Your task to perform on an android device: stop showing notifications on the lock screen Image 0: 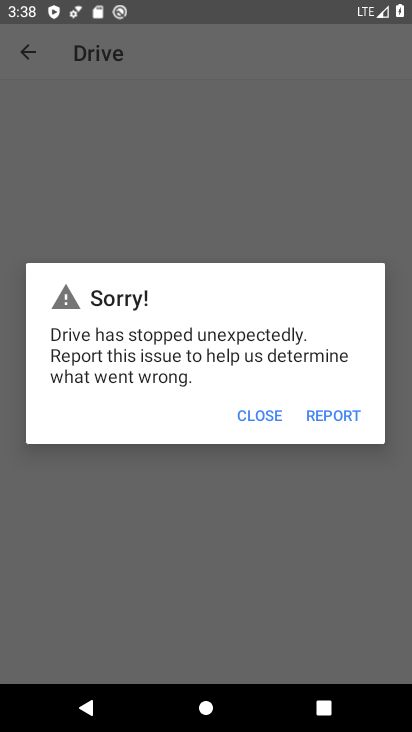
Step 0: press home button
Your task to perform on an android device: stop showing notifications on the lock screen Image 1: 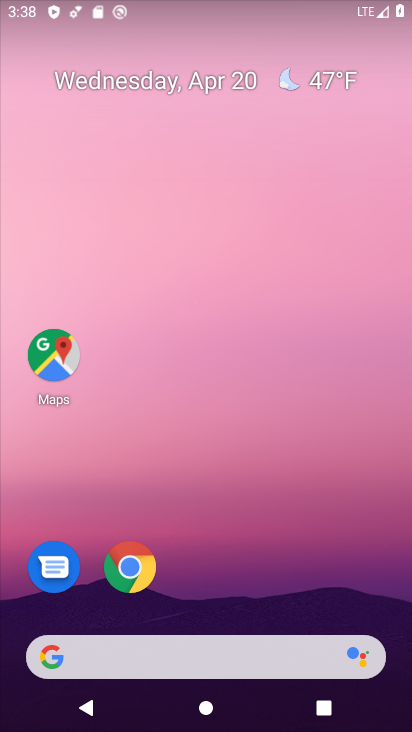
Step 1: drag from (293, 480) to (252, 26)
Your task to perform on an android device: stop showing notifications on the lock screen Image 2: 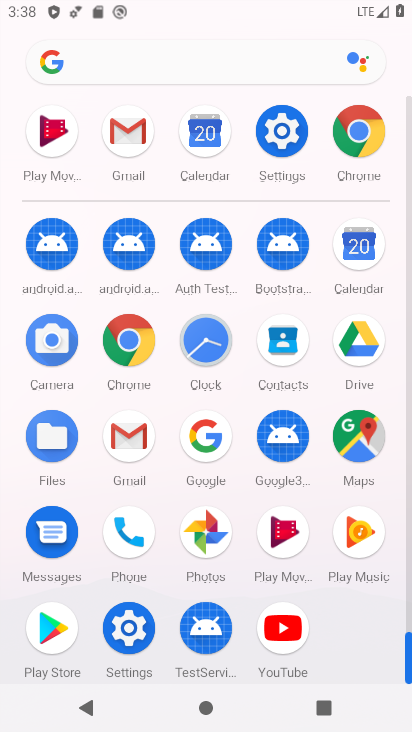
Step 2: drag from (20, 357) to (16, 176)
Your task to perform on an android device: stop showing notifications on the lock screen Image 3: 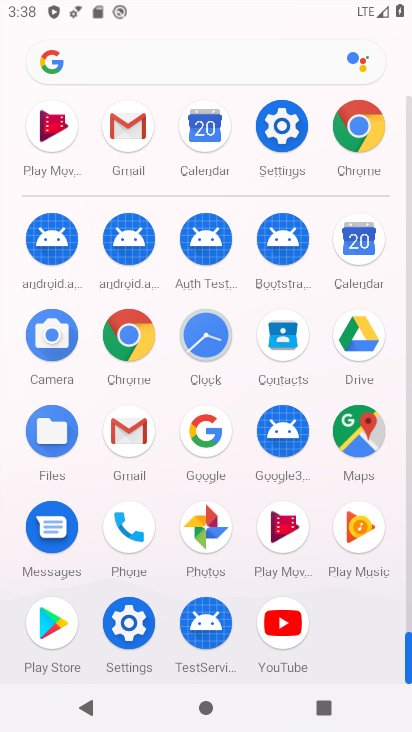
Step 3: click (130, 617)
Your task to perform on an android device: stop showing notifications on the lock screen Image 4: 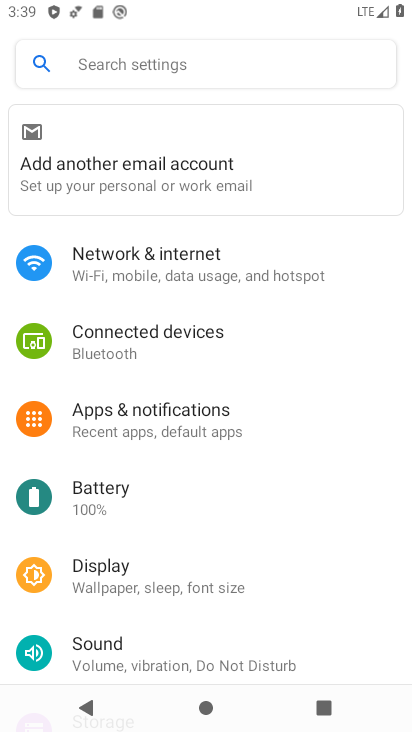
Step 4: click (204, 396)
Your task to perform on an android device: stop showing notifications on the lock screen Image 5: 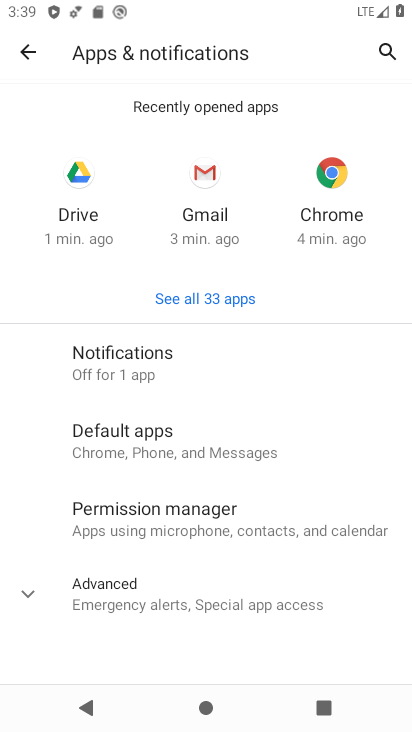
Step 5: click (184, 367)
Your task to perform on an android device: stop showing notifications on the lock screen Image 6: 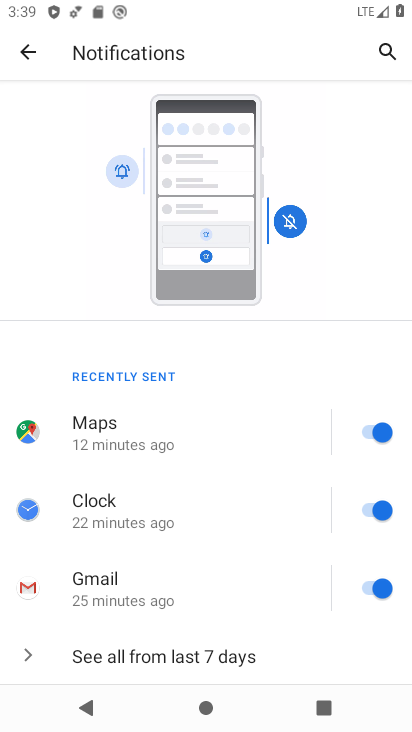
Step 6: drag from (228, 434) to (220, 208)
Your task to perform on an android device: stop showing notifications on the lock screen Image 7: 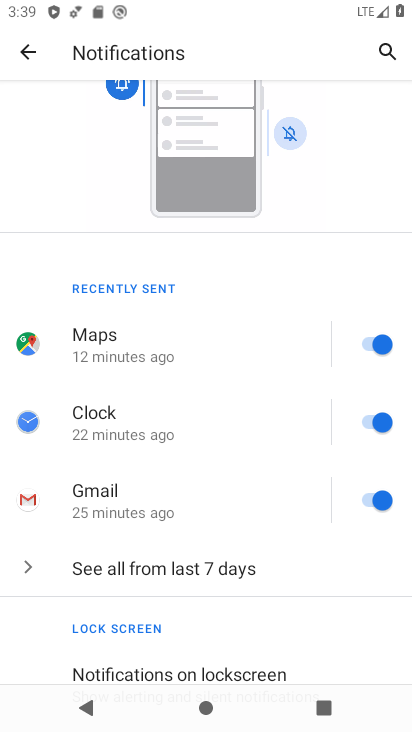
Step 7: drag from (299, 611) to (260, 237)
Your task to perform on an android device: stop showing notifications on the lock screen Image 8: 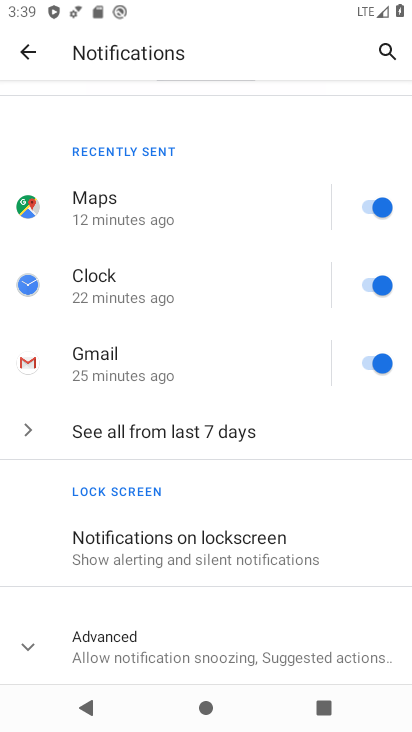
Step 8: drag from (264, 574) to (256, 242)
Your task to perform on an android device: stop showing notifications on the lock screen Image 9: 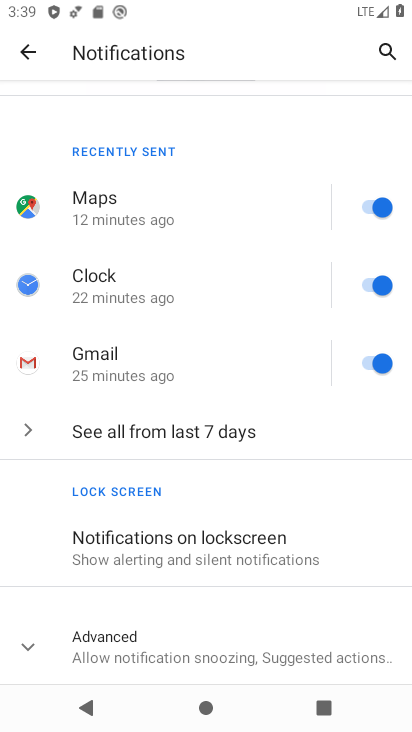
Step 9: click (230, 552)
Your task to perform on an android device: stop showing notifications on the lock screen Image 10: 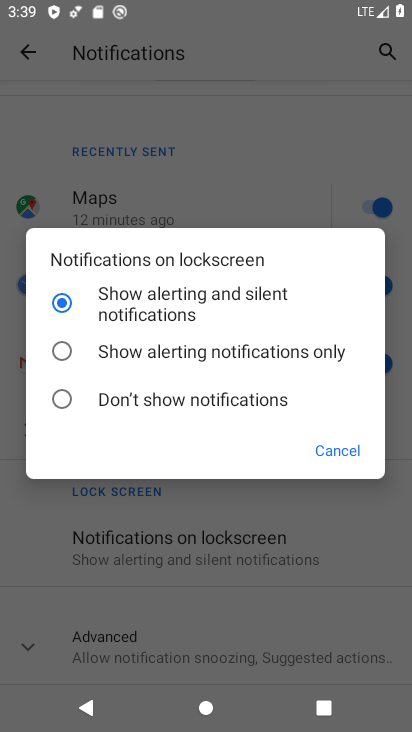
Step 10: click (151, 383)
Your task to perform on an android device: stop showing notifications on the lock screen Image 11: 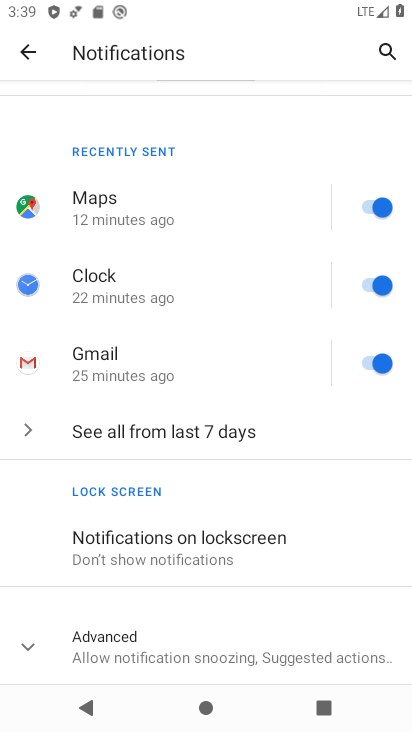
Step 11: task complete